Your task to perform on an android device: Go to Amazon Image 0: 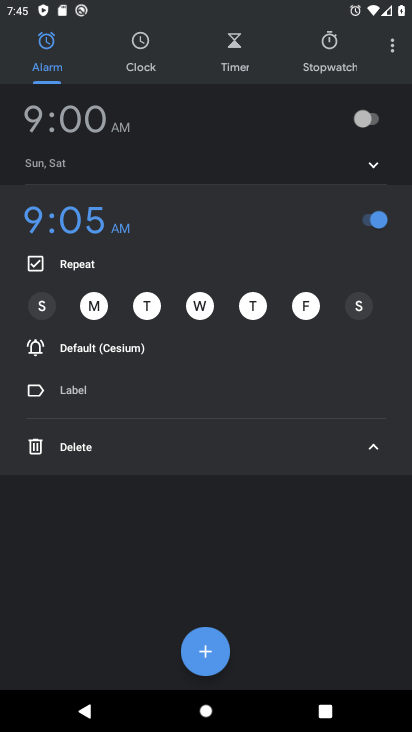
Step 0: press home button
Your task to perform on an android device: Go to Amazon Image 1: 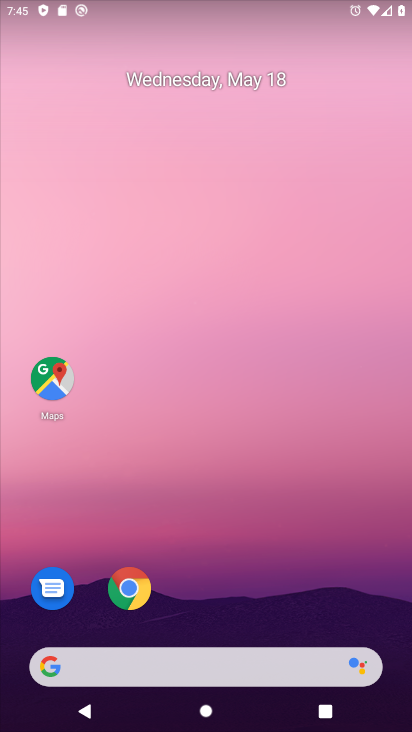
Step 1: click (132, 589)
Your task to perform on an android device: Go to Amazon Image 2: 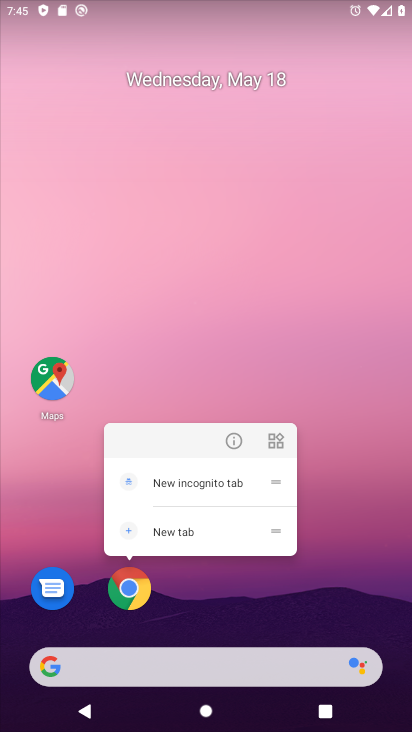
Step 2: click (133, 593)
Your task to perform on an android device: Go to Amazon Image 3: 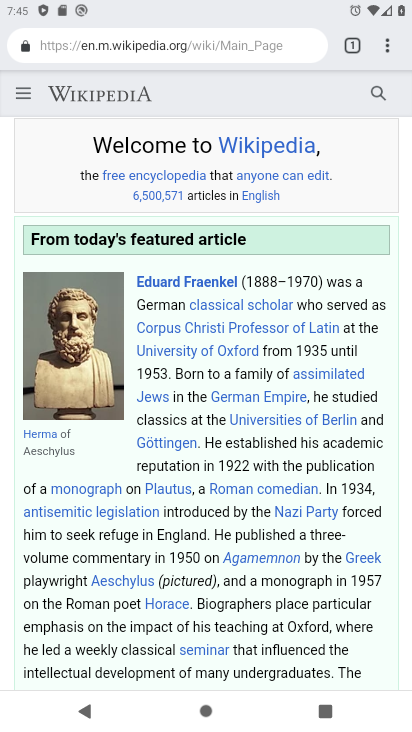
Step 3: click (271, 47)
Your task to perform on an android device: Go to Amazon Image 4: 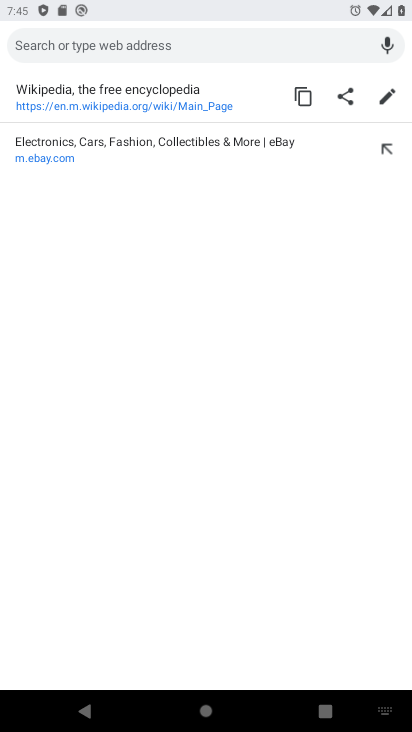
Step 4: type "Amazon"
Your task to perform on an android device: Go to Amazon Image 5: 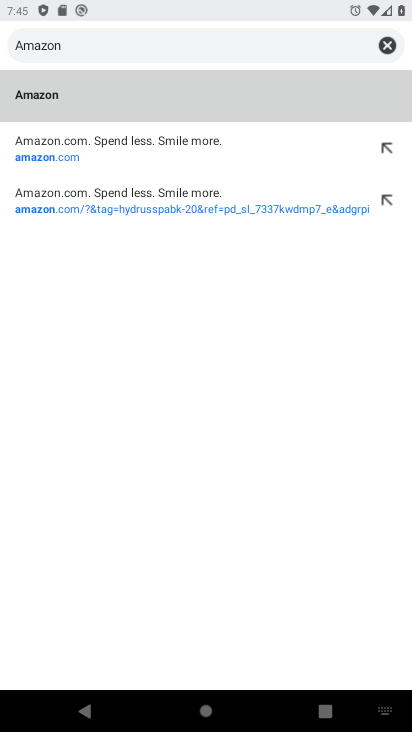
Step 5: click (51, 147)
Your task to perform on an android device: Go to Amazon Image 6: 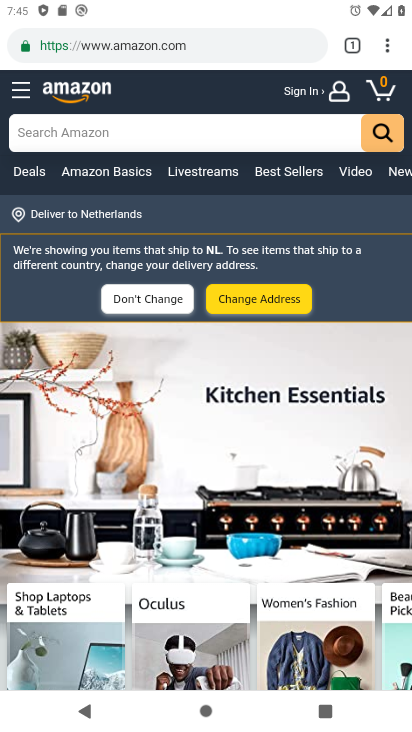
Step 6: task complete